Your task to perform on an android device: What is the news today? Image 0: 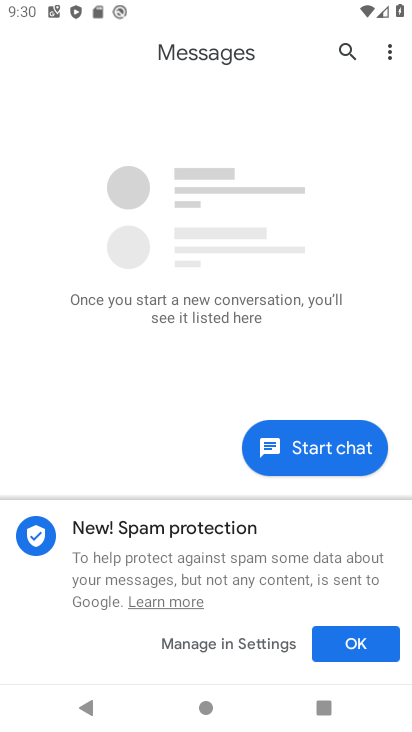
Step 0: press home button
Your task to perform on an android device: What is the news today? Image 1: 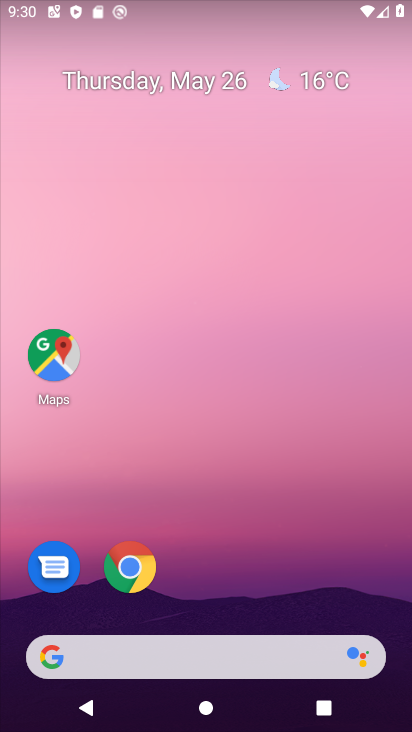
Step 1: task complete